Your task to perform on an android device: toggle location history Image 0: 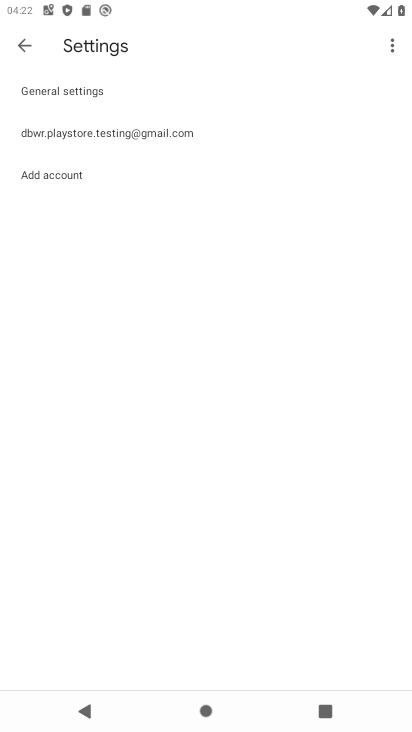
Step 0: press back button
Your task to perform on an android device: toggle location history Image 1: 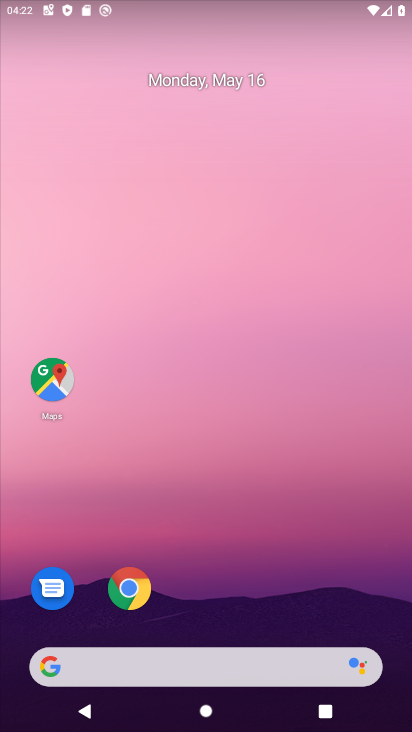
Step 1: drag from (216, 546) to (307, 4)
Your task to perform on an android device: toggle location history Image 2: 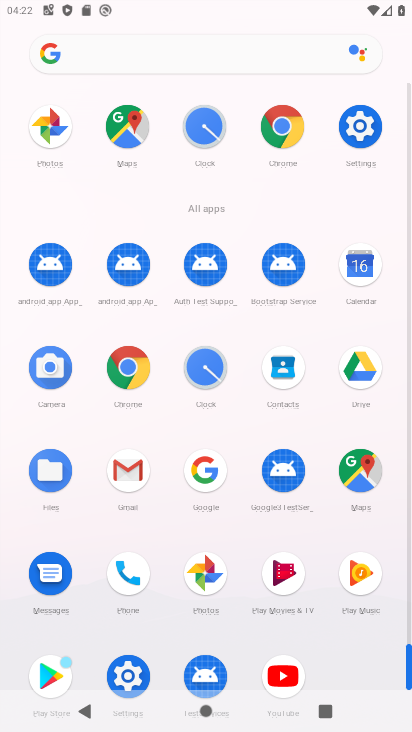
Step 2: click (358, 125)
Your task to perform on an android device: toggle location history Image 3: 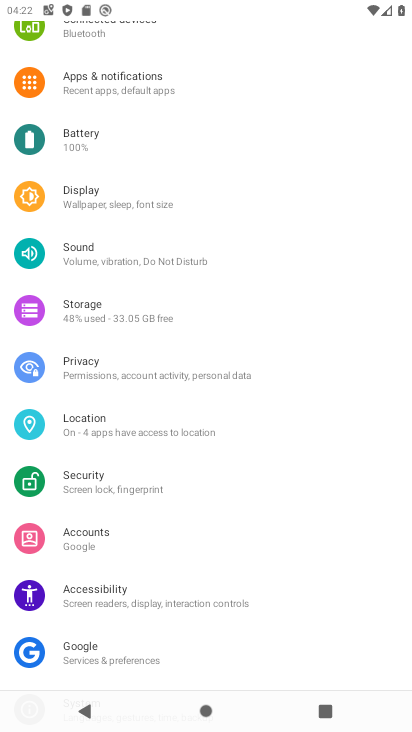
Step 3: drag from (228, 526) to (281, 83)
Your task to perform on an android device: toggle location history Image 4: 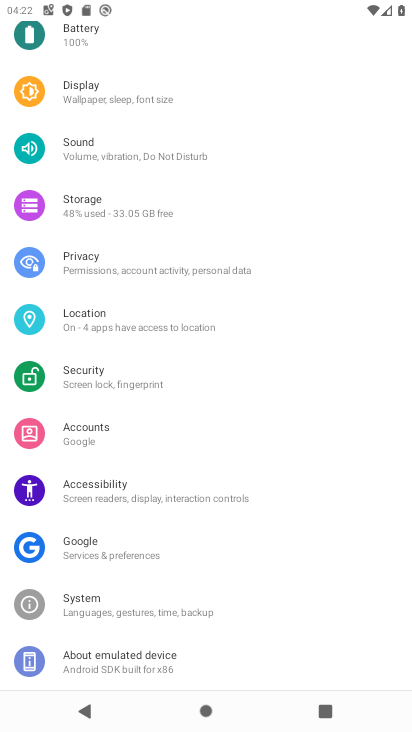
Step 4: click (99, 316)
Your task to perform on an android device: toggle location history Image 5: 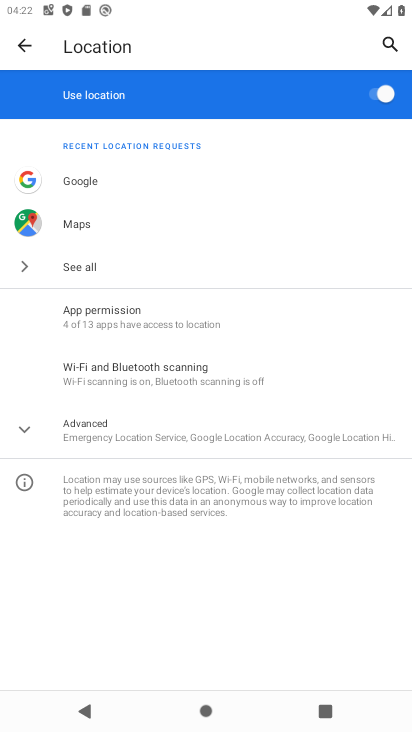
Step 5: click (101, 444)
Your task to perform on an android device: toggle location history Image 6: 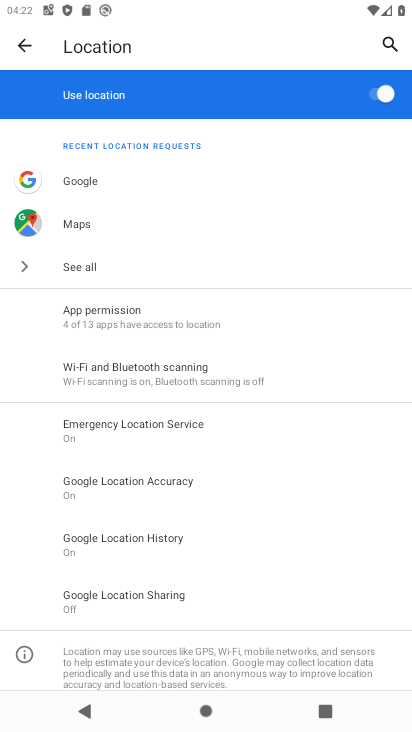
Step 6: click (135, 534)
Your task to perform on an android device: toggle location history Image 7: 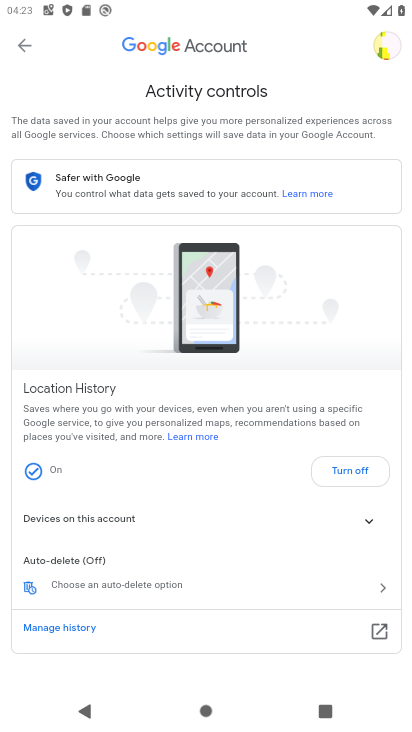
Step 7: drag from (216, 533) to (258, 102)
Your task to perform on an android device: toggle location history Image 8: 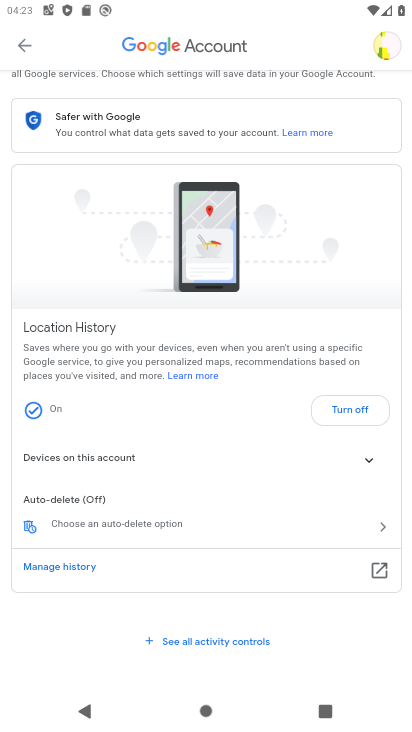
Step 8: click (369, 400)
Your task to perform on an android device: toggle location history Image 9: 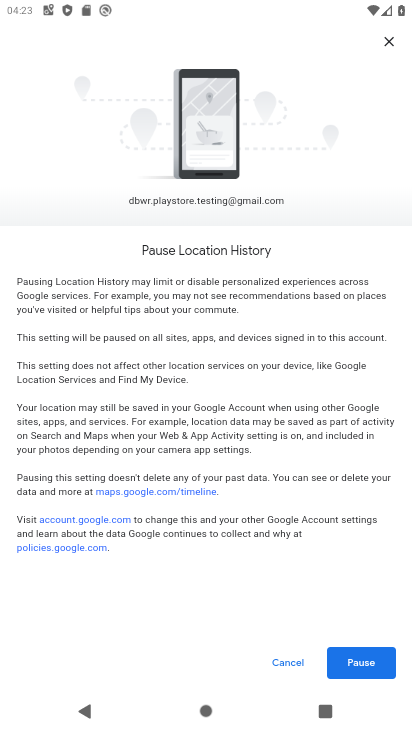
Step 9: click (360, 649)
Your task to perform on an android device: toggle location history Image 10: 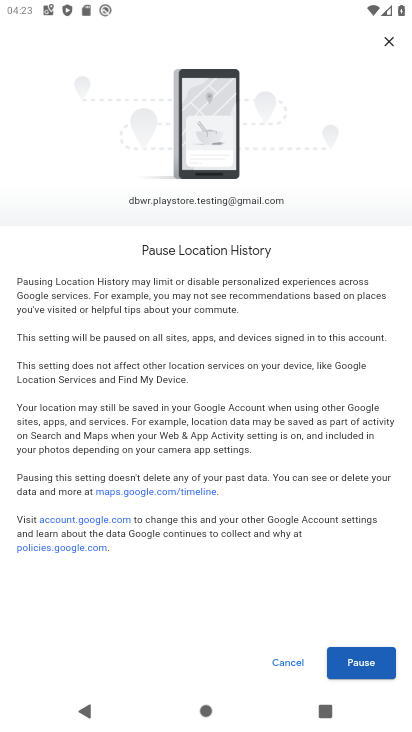
Step 10: click (360, 655)
Your task to perform on an android device: toggle location history Image 11: 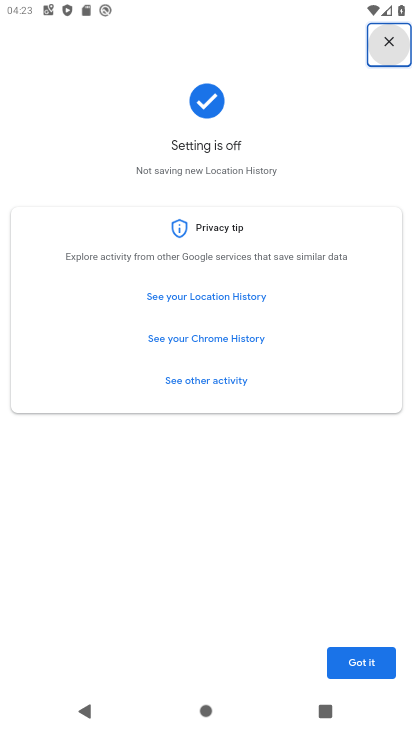
Step 11: click (371, 664)
Your task to perform on an android device: toggle location history Image 12: 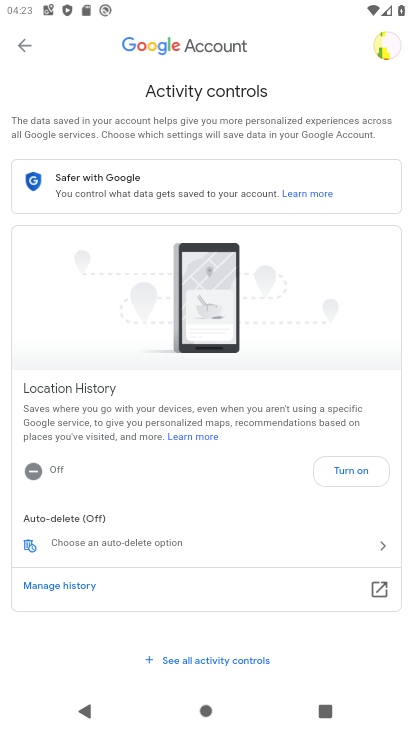
Step 12: task complete